Your task to perform on an android device: turn pop-ups off in chrome Image 0: 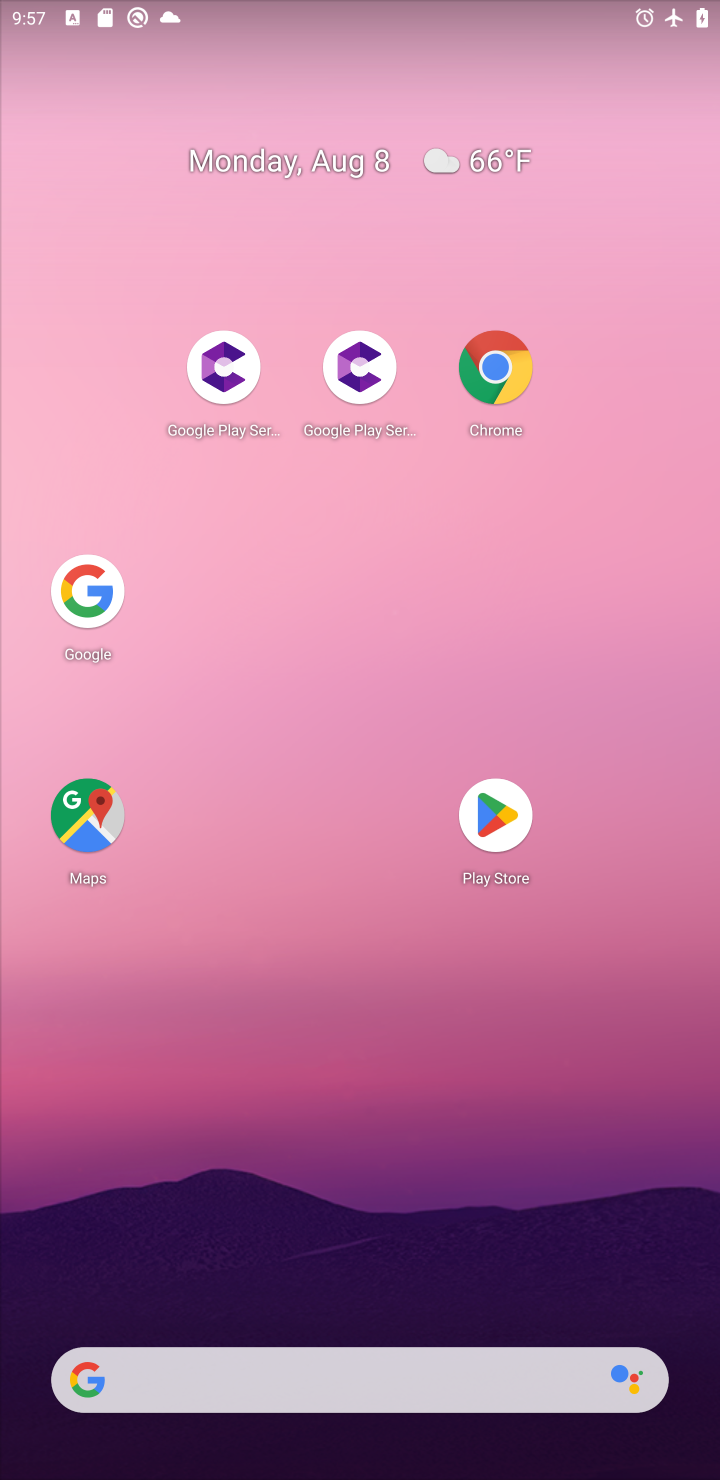
Step 0: click (493, 372)
Your task to perform on an android device: turn pop-ups off in chrome Image 1: 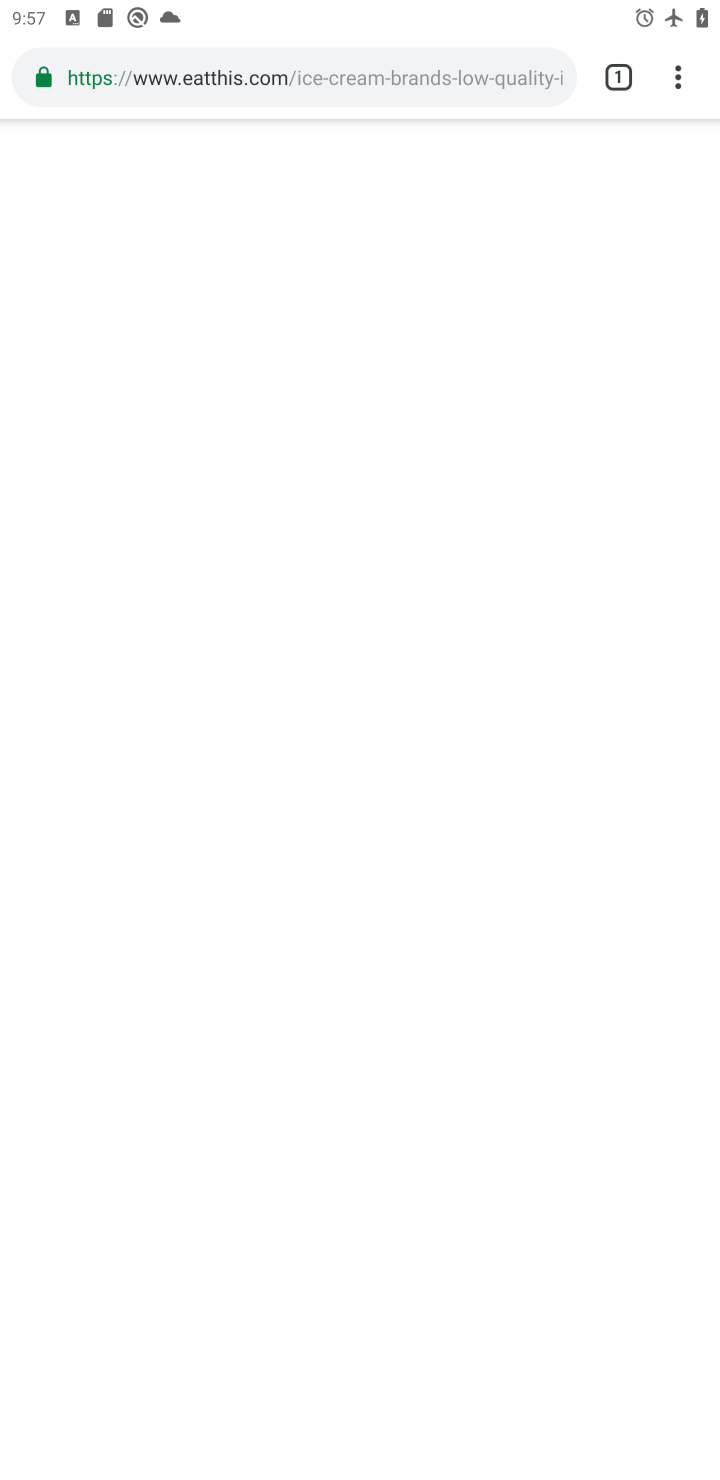
Step 1: click (693, 56)
Your task to perform on an android device: turn pop-ups off in chrome Image 2: 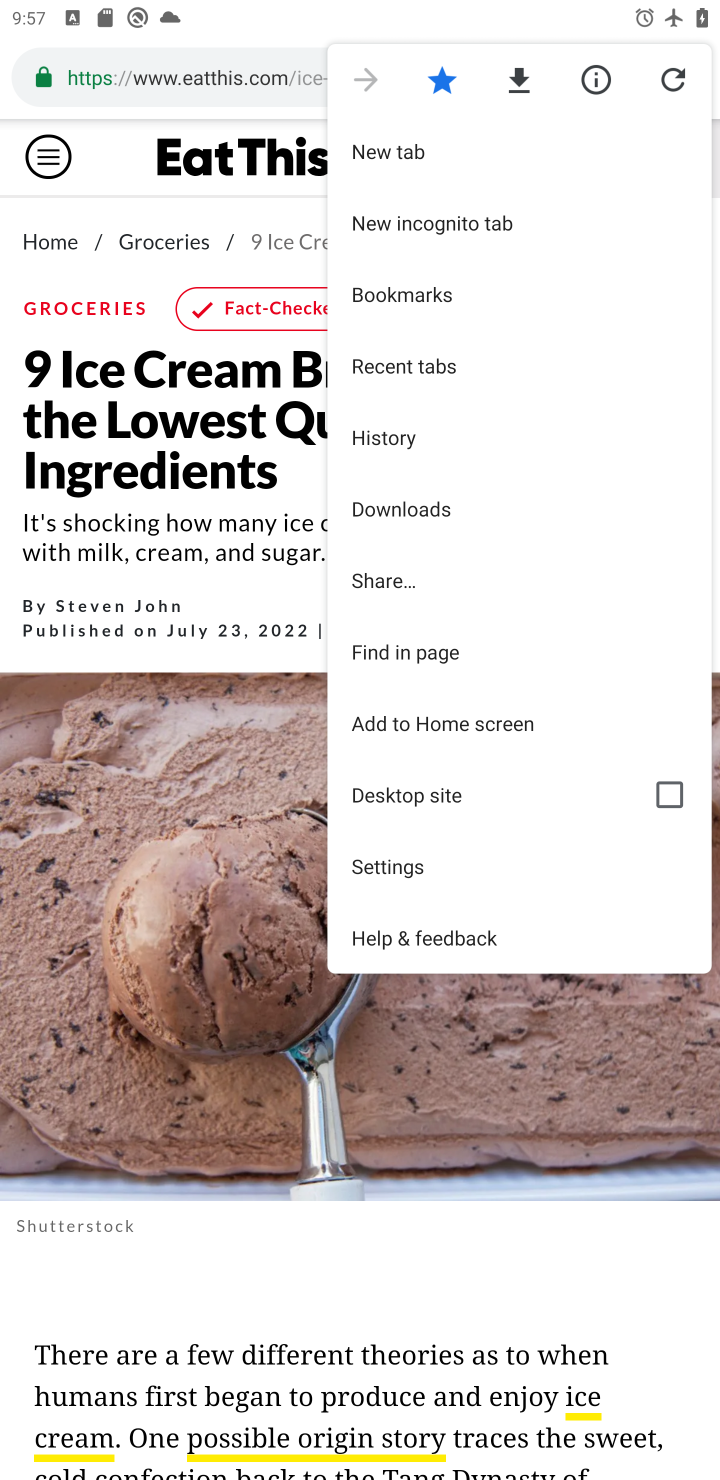
Step 2: click (438, 863)
Your task to perform on an android device: turn pop-ups off in chrome Image 3: 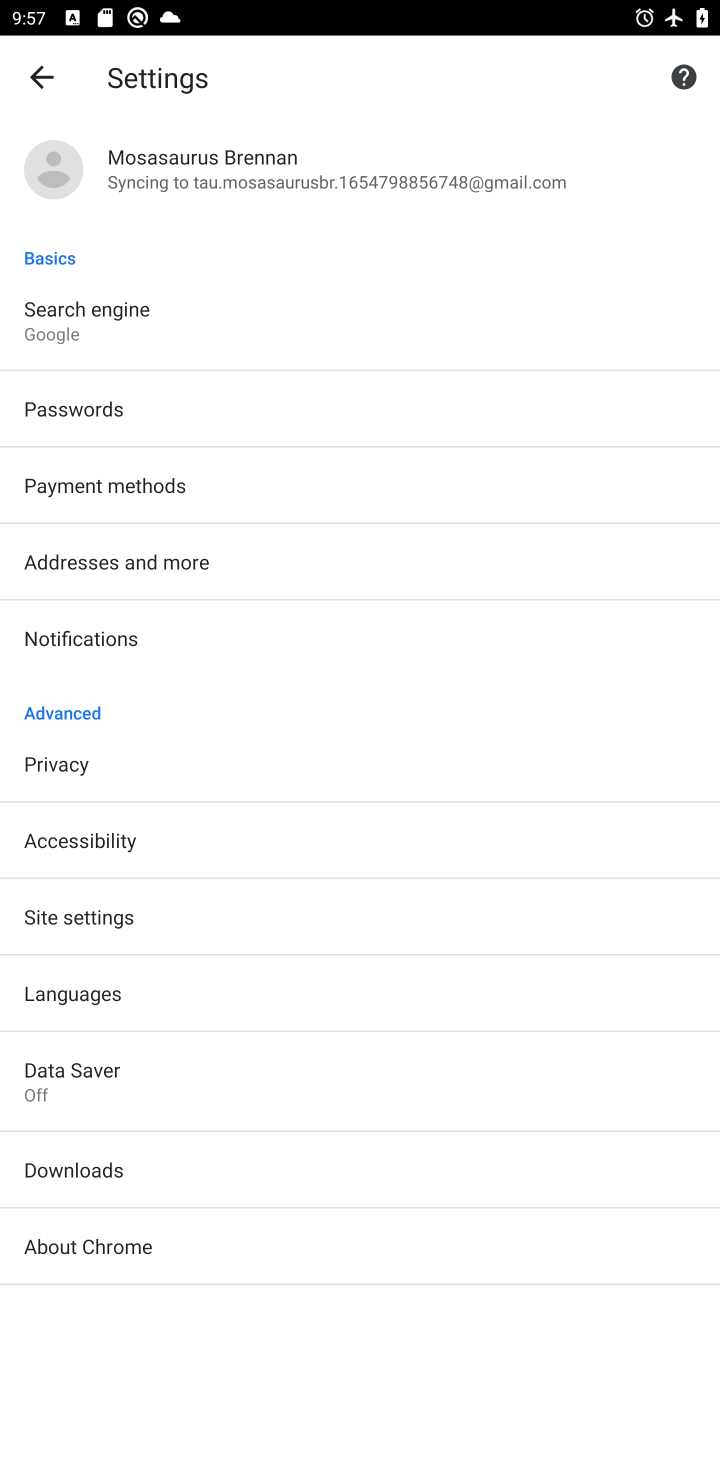
Step 3: click (181, 906)
Your task to perform on an android device: turn pop-ups off in chrome Image 4: 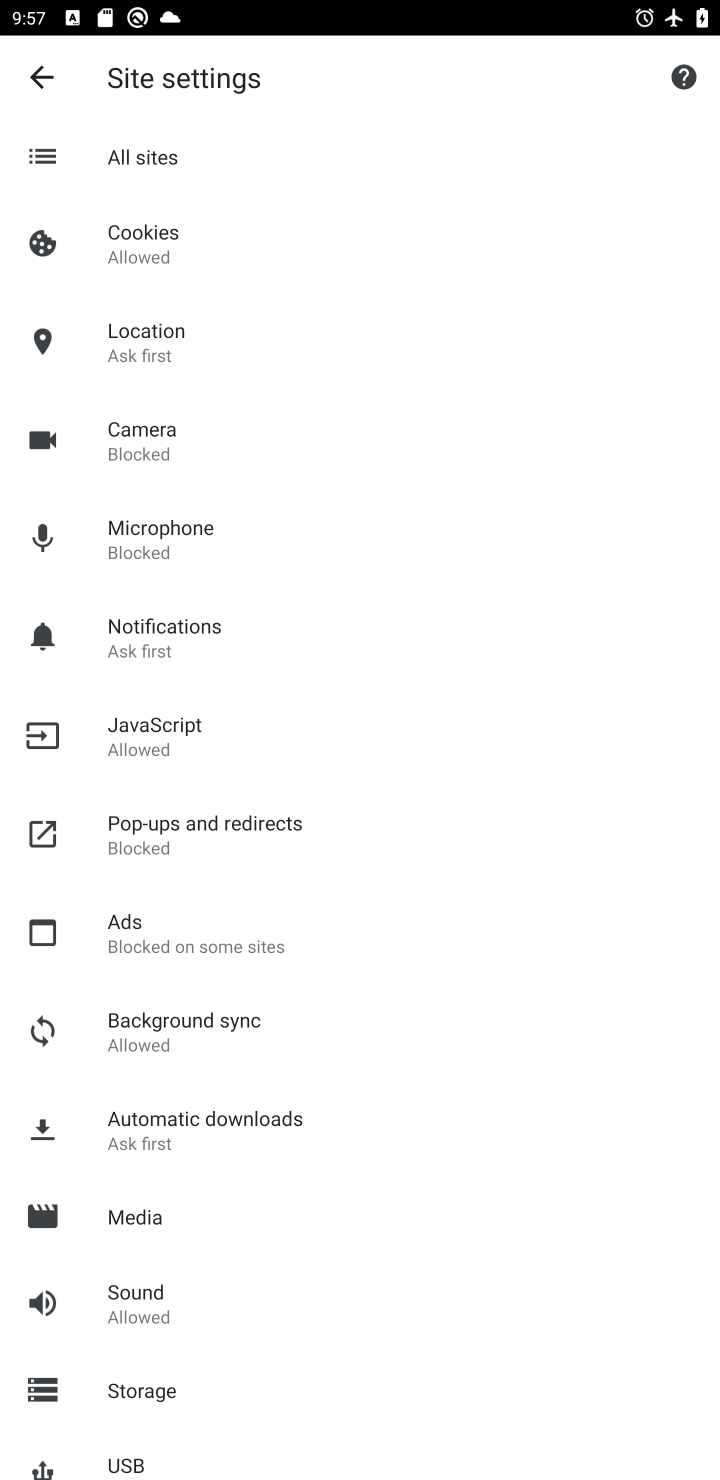
Step 4: click (200, 839)
Your task to perform on an android device: turn pop-ups off in chrome Image 5: 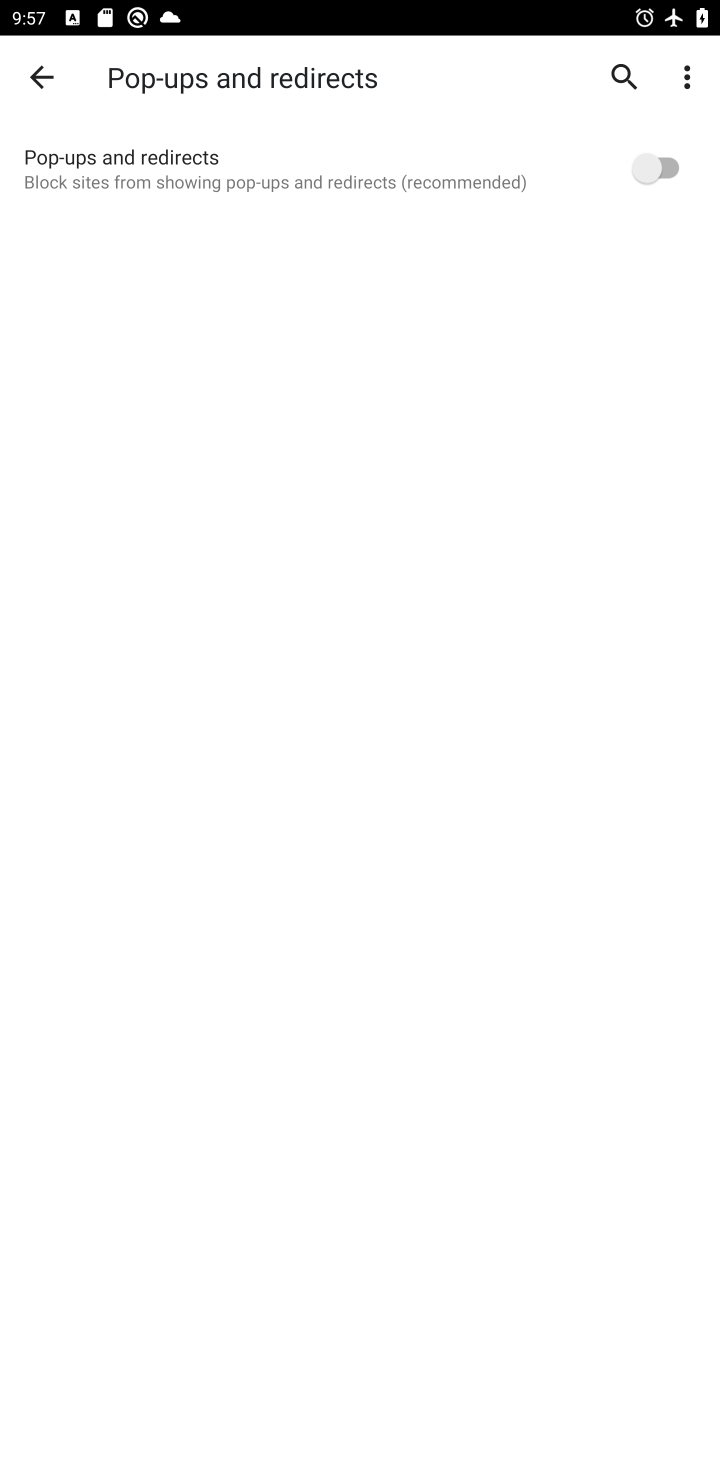
Step 5: task complete